Your task to perform on an android device: create a new album in the google photos Image 0: 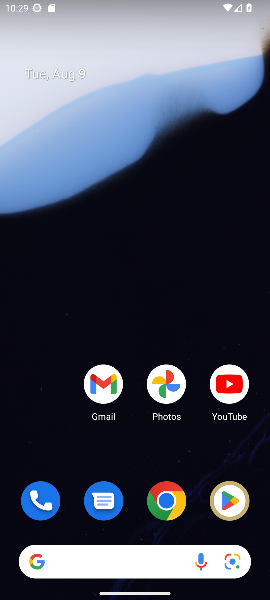
Step 0: click (170, 389)
Your task to perform on an android device: create a new album in the google photos Image 1: 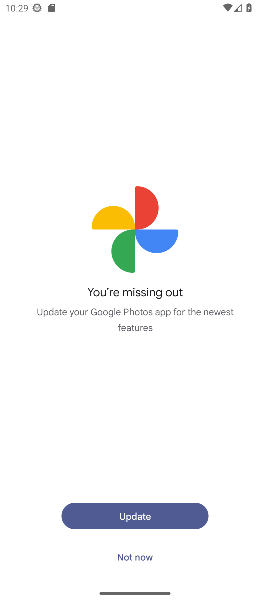
Step 1: click (124, 518)
Your task to perform on an android device: create a new album in the google photos Image 2: 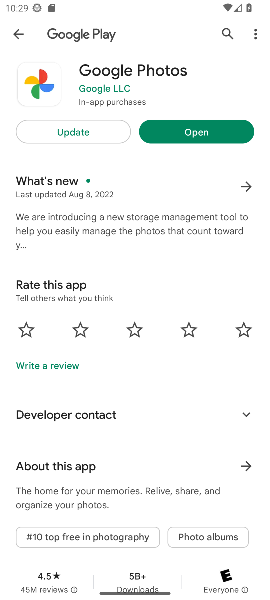
Step 2: click (77, 132)
Your task to perform on an android device: create a new album in the google photos Image 3: 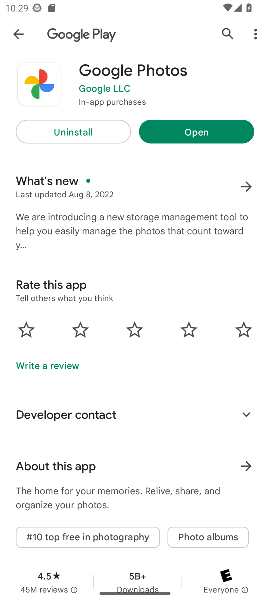
Step 3: click (188, 132)
Your task to perform on an android device: create a new album in the google photos Image 4: 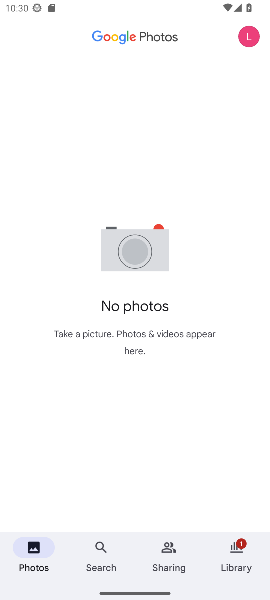
Step 4: click (236, 550)
Your task to perform on an android device: create a new album in the google photos Image 5: 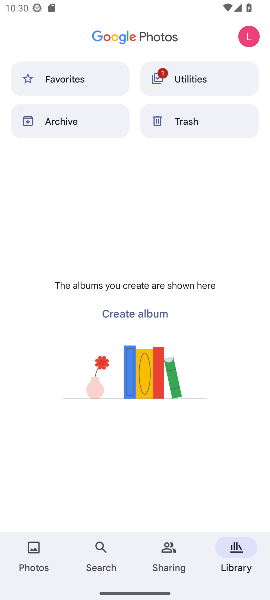
Step 5: click (128, 313)
Your task to perform on an android device: create a new album in the google photos Image 6: 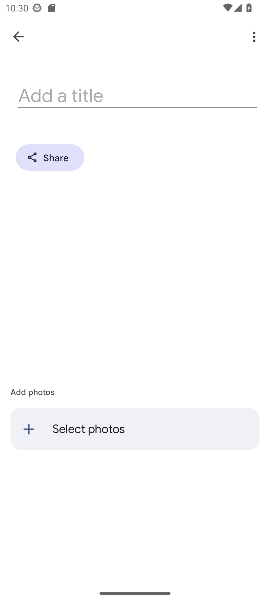
Step 6: click (115, 93)
Your task to perform on an android device: create a new album in the google photos Image 7: 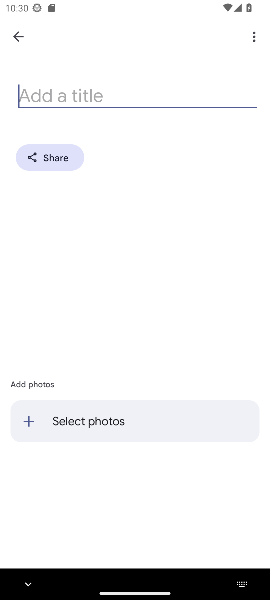
Step 7: type "Samudra"
Your task to perform on an android device: create a new album in the google photos Image 8: 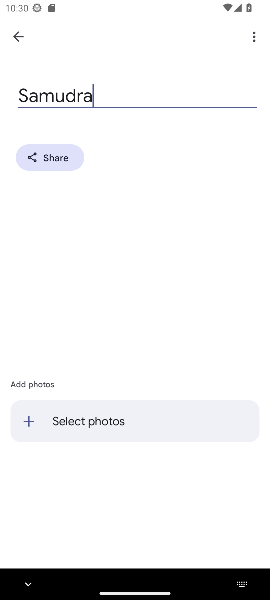
Step 8: click (95, 418)
Your task to perform on an android device: create a new album in the google photos Image 9: 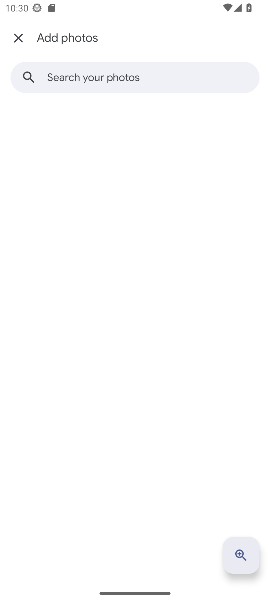
Step 9: task complete